Your task to perform on an android device: Turn on the flashlight Image 0: 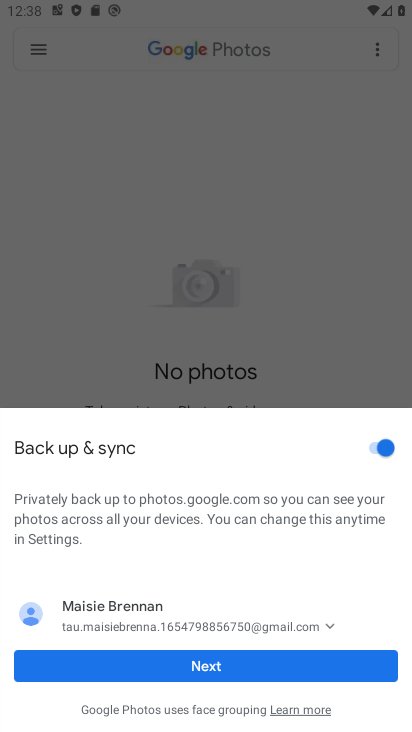
Step 0: press home button
Your task to perform on an android device: Turn on the flashlight Image 1: 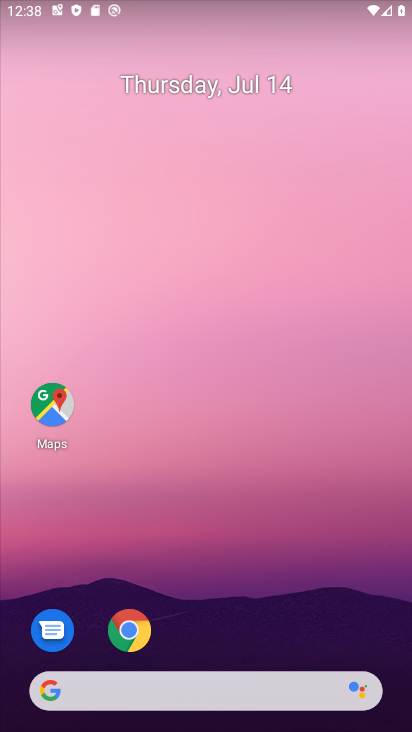
Step 1: drag from (212, 7) to (219, 534)
Your task to perform on an android device: Turn on the flashlight Image 2: 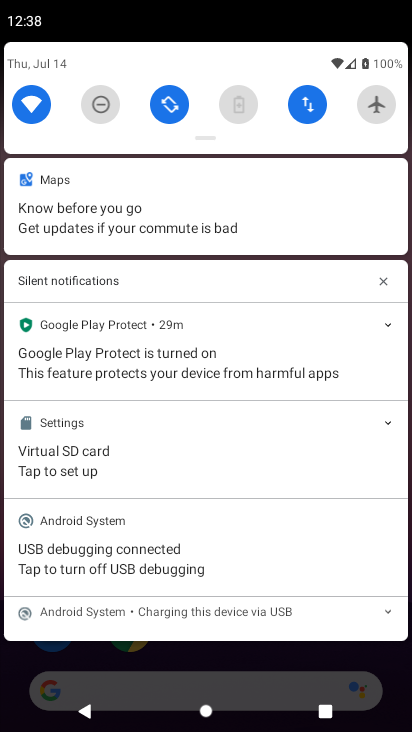
Step 2: drag from (193, 124) to (200, 622)
Your task to perform on an android device: Turn on the flashlight Image 3: 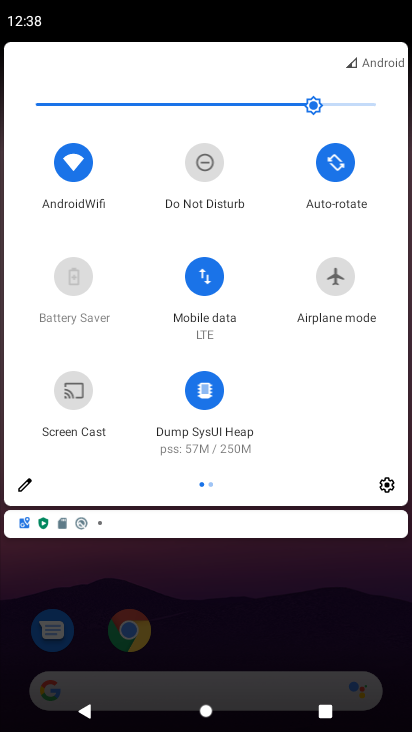
Step 3: drag from (360, 380) to (2, 434)
Your task to perform on an android device: Turn on the flashlight Image 4: 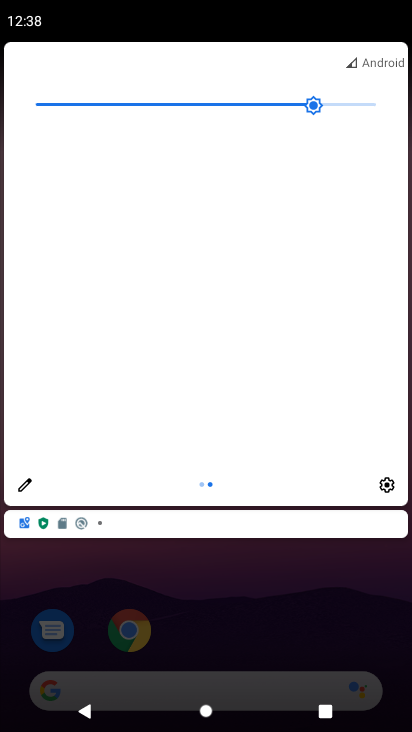
Step 4: click (17, 489)
Your task to perform on an android device: Turn on the flashlight Image 5: 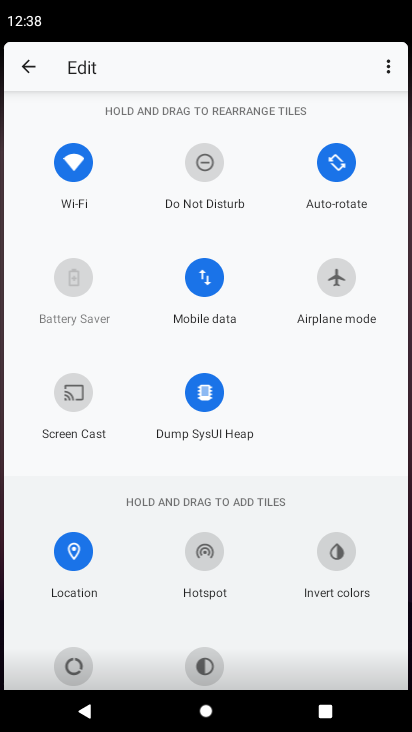
Step 5: task complete